Your task to perform on an android device: open a new tab in the chrome app Image 0: 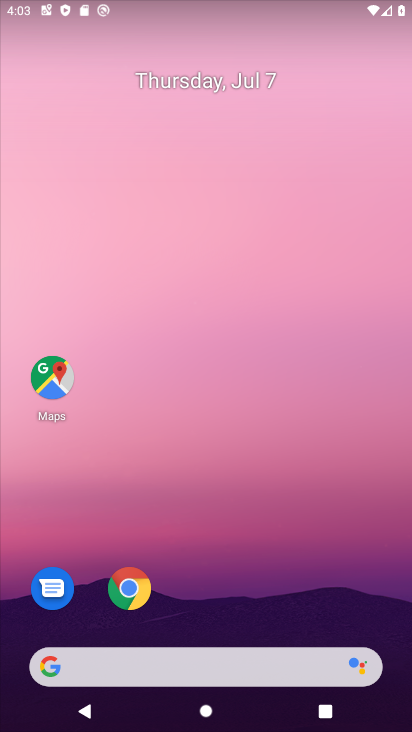
Step 0: press home button
Your task to perform on an android device: open a new tab in the chrome app Image 1: 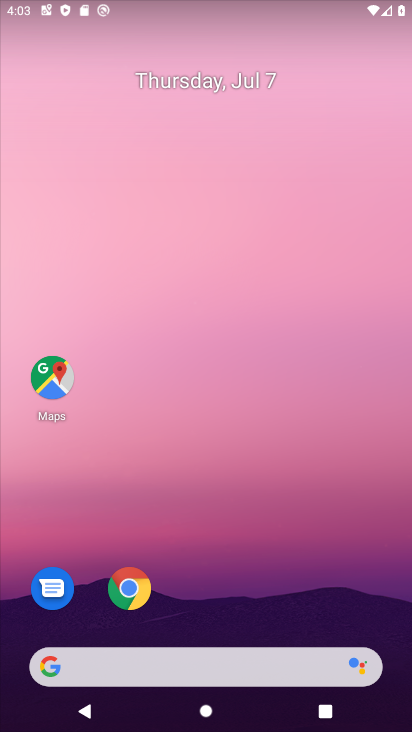
Step 1: drag from (166, 609) to (6, 152)
Your task to perform on an android device: open a new tab in the chrome app Image 2: 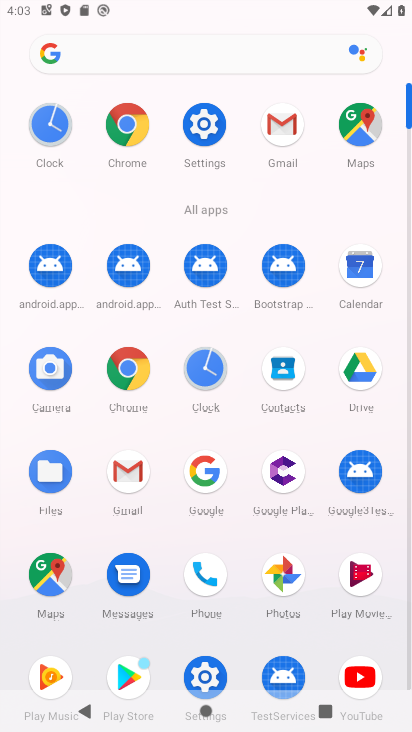
Step 2: click (129, 118)
Your task to perform on an android device: open a new tab in the chrome app Image 3: 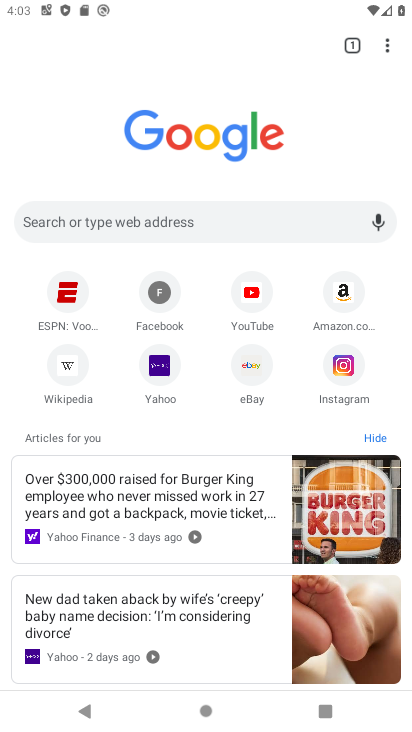
Step 3: click (360, 47)
Your task to perform on an android device: open a new tab in the chrome app Image 4: 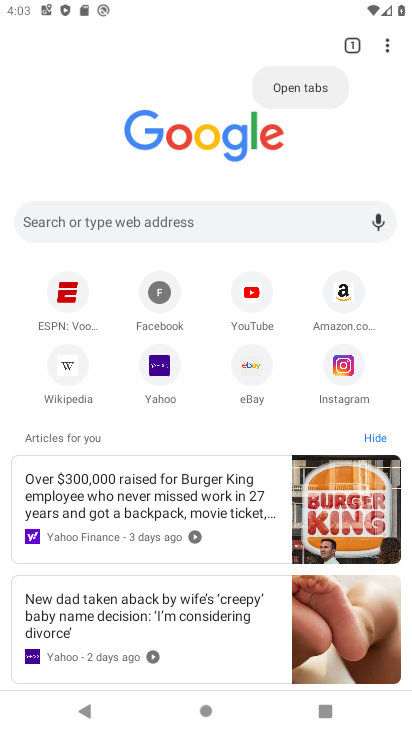
Step 4: click (360, 47)
Your task to perform on an android device: open a new tab in the chrome app Image 5: 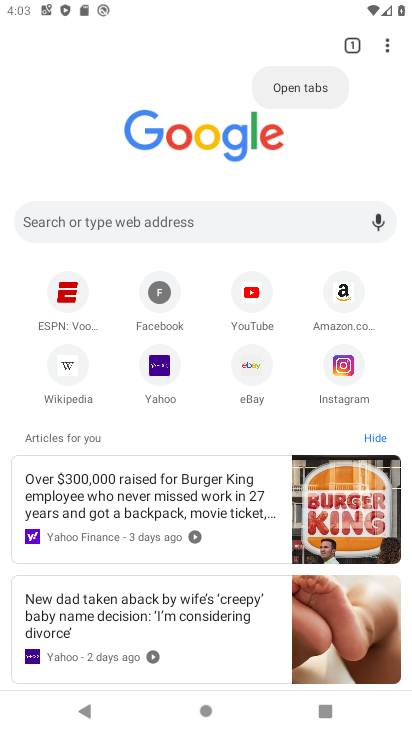
Step 5: click (360, 47)
Your task to perform on an android device: open a new tab in the chrome app Image 6: 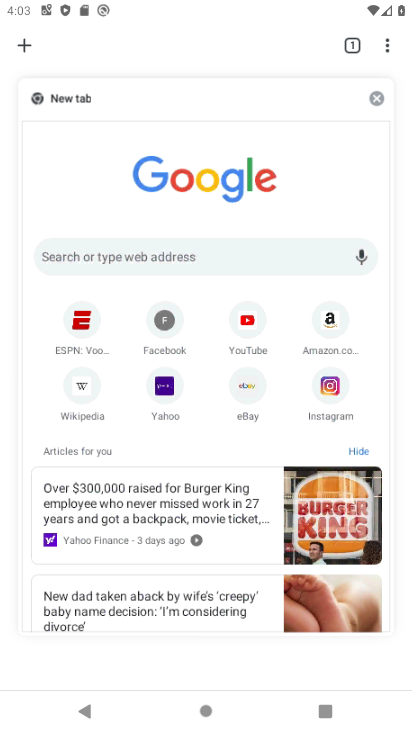
Step 6: click (26, 49)
Your task to perform on an android device: open a new tab in the chrome app Image 7: 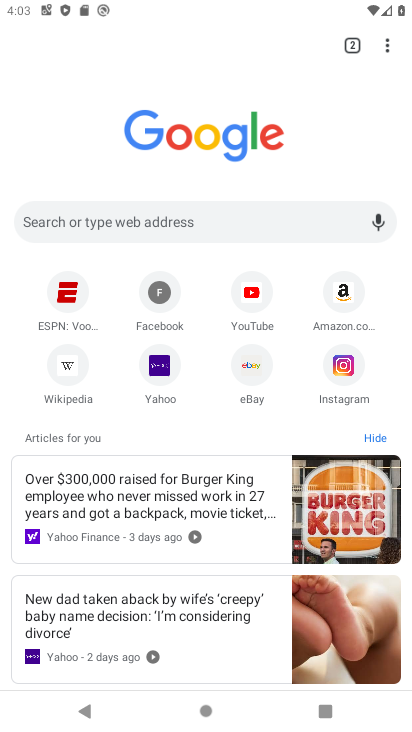
Step 7: task complete